Your task to perform on an android device: add a contact in the contacts app Image 0: 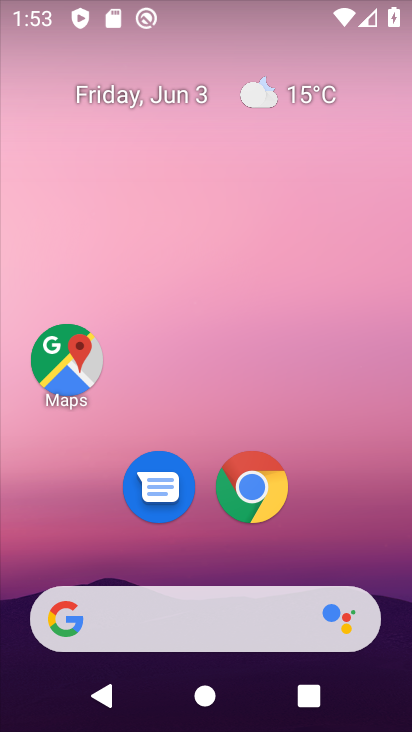
Step 0: drag from (323, 535) to (94, 16)
Your task to perform on an android device: add a contact in the contacts app Image 1: 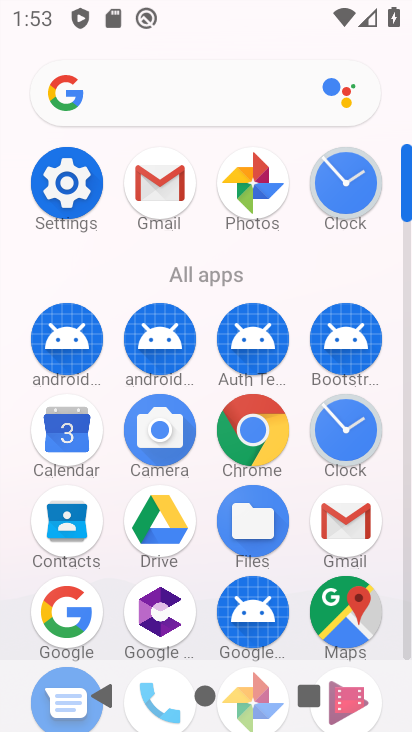
Step 1: drag from (218, 595) to (188, 231)
Your task to perform on an android device: add a contact in the contacts app Image 2: 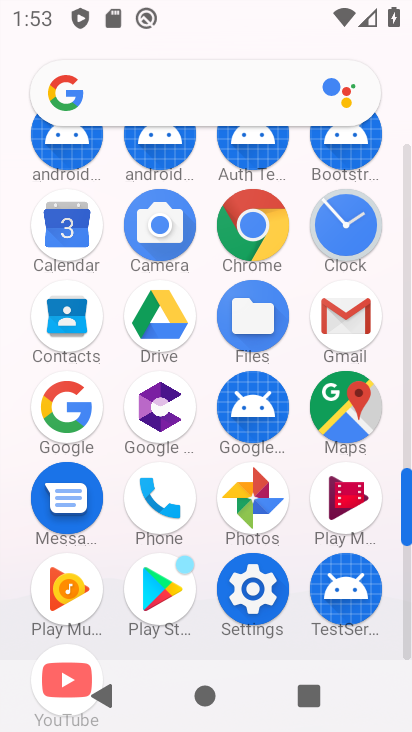
Step 2: click (81, 323)
Your task to perform on an android device: add a contact in the contacts app Image 3: 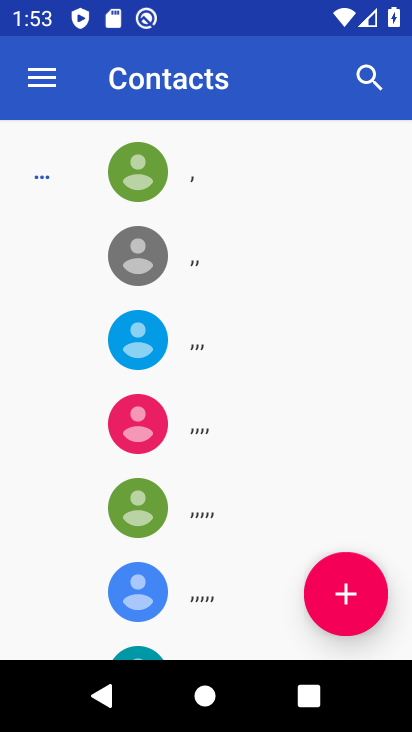
Step 3: click (354, 579)
Your task to perform on an android device: add a contact in the contacts app Image 4: 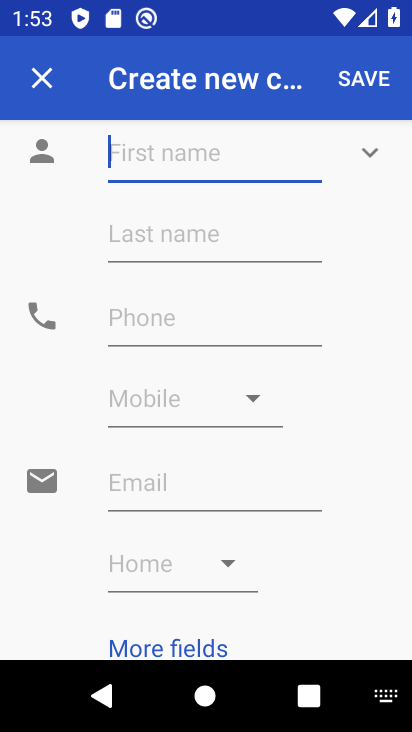
Step 4: type "yyfhfh"
Your task to perform on an android device: add a contact in the contacts app Image 5: 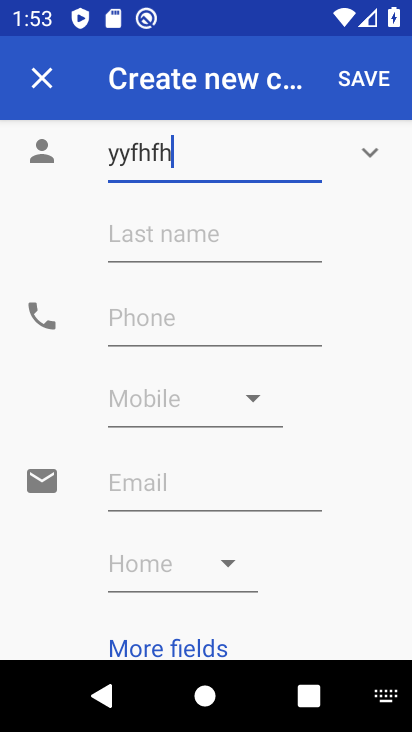
Step 5: click (207, 252)
Your task to perform on an android device: add a contact in the contacts app Image 6: 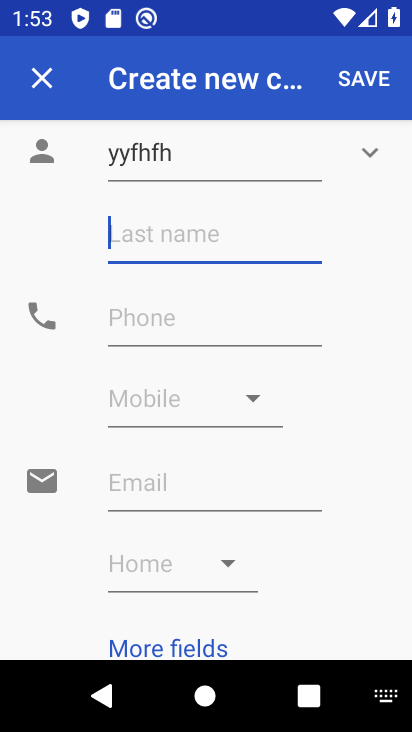
Step 6: type "hgfhfj"
Your task to perform on an android device: add a contact in the contacts app Image 7: 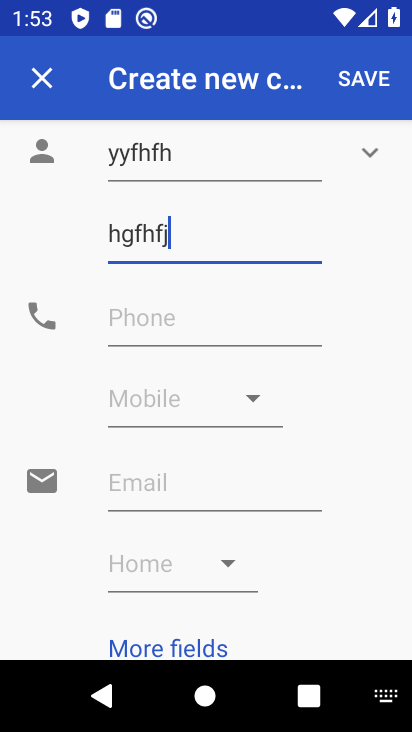
Step 7: type ""
Your task to perform on an android device: add a contact in the contacts app Image 8: 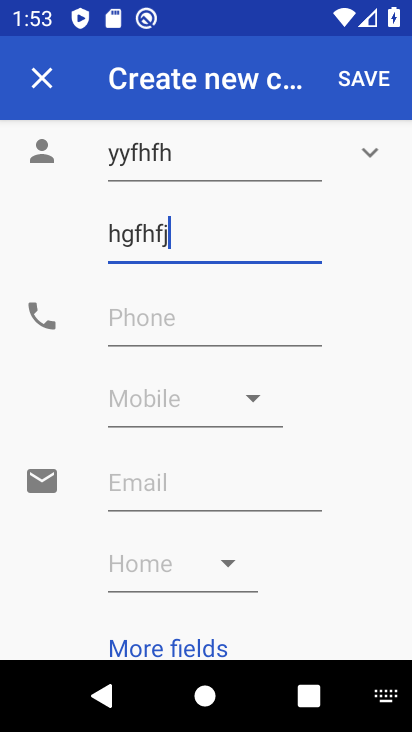
Step 8: click (295, 318)
Your task to perform on an android device: add a contact in the contacts app Image 9: 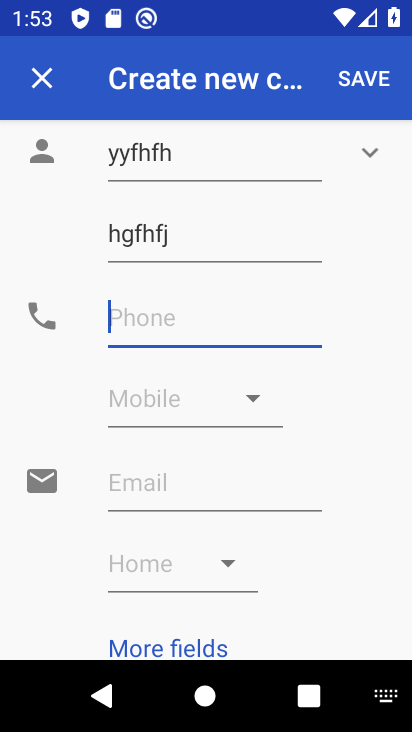
Step 9: type "67575865865"
Your task to perform on an android device: add a contact in the contacts app Image 10: 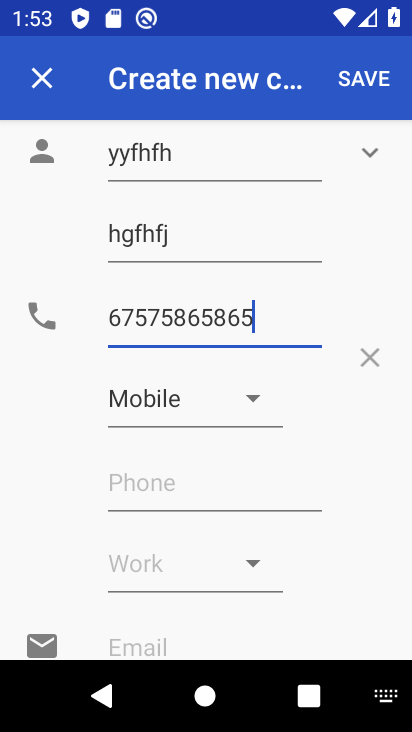
Step 10: type ""
Your task to perform on an android device: add a contact in the contacts app Image 11: 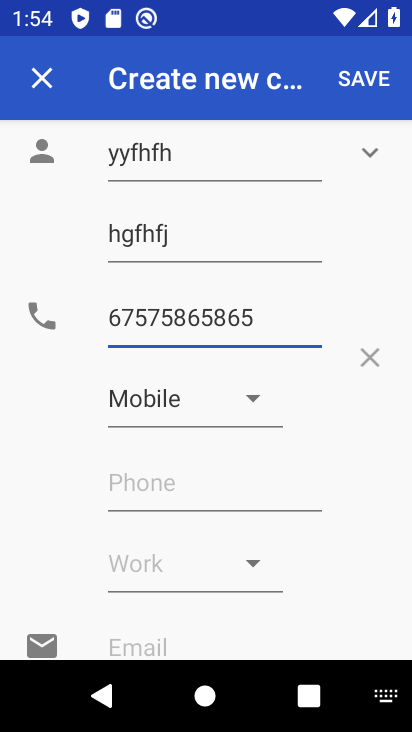
Step 11: type ""
Your task to perform on an android device: add a contact in the contacts app Image 12: 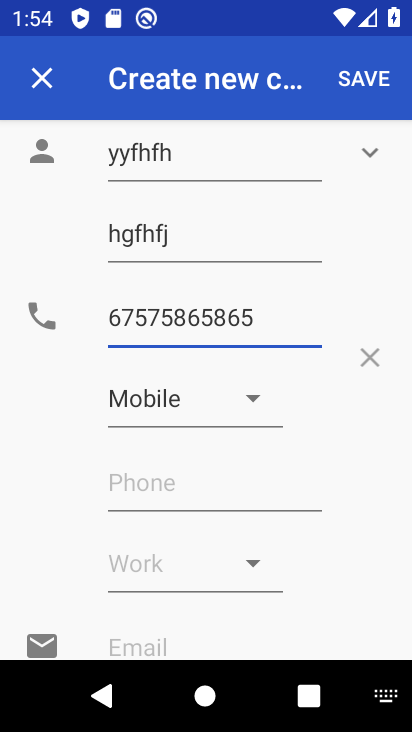
Step 12: click (364, 66)
Your task to perform on an android device: add a contact in the contacts app Image 13: 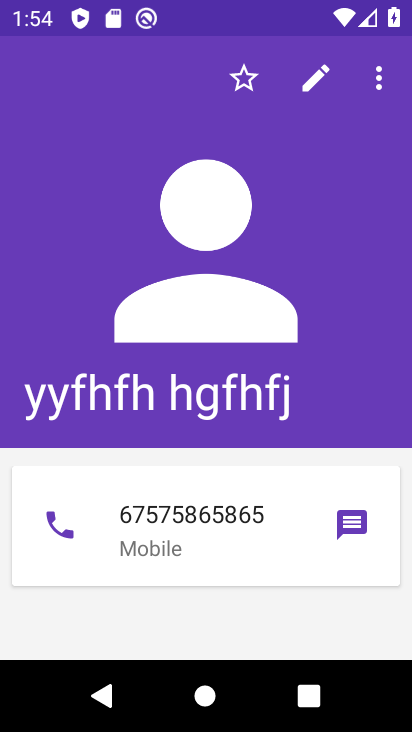
Step 13: task complete